Your task to perform on an android device: Go to display settings Image 0: 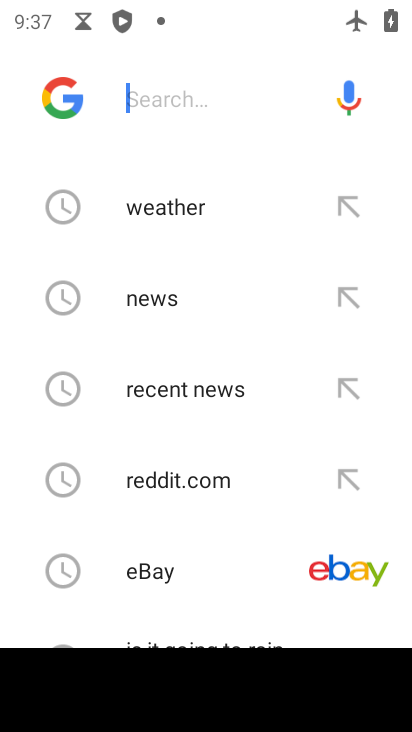
Step 0: press home button
Your task to perform on an android device: Go to display settings Image 1: 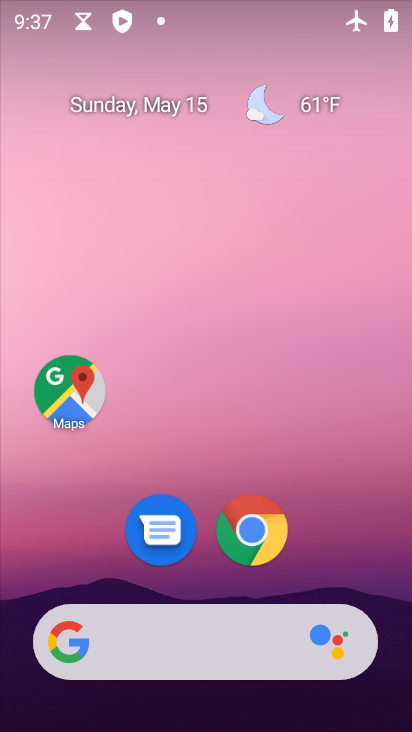
Step 1: drag from (225, 715) to (244, 130)
Your task to perform on an android device: Go to display settings Image 2: 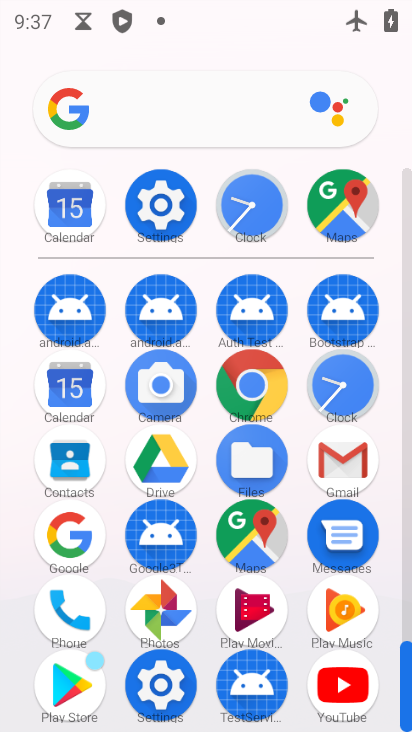
Step 2: click (159, 212)
Your task to perform on an android device: Go to display settings Image 3: 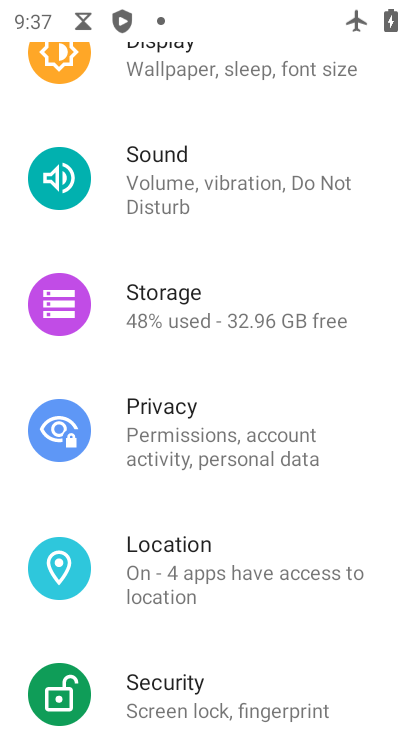
Step 3: drag from (239, 164) to (248, 408)
Your task to perform on an android device: Go to display settings Image 4: 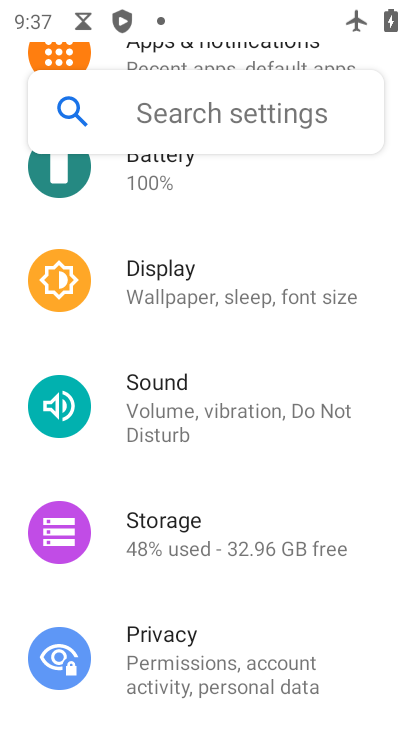
Step 4: click (160, 294)
Your task to perform on an android device: Go to display settings Image 5: 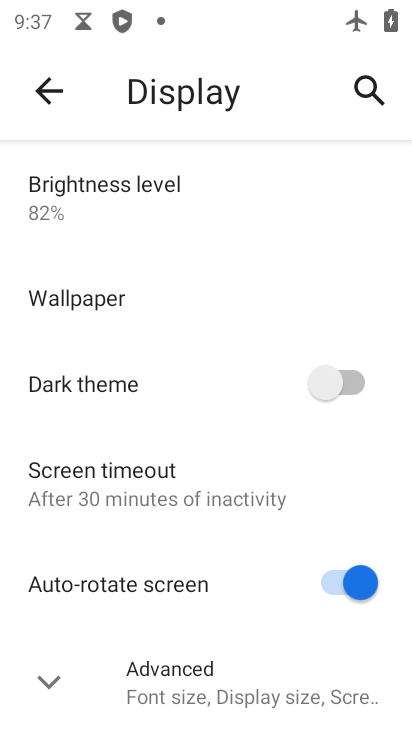
Step 5: task complete